Your task to perform on an android device: What's on the menu at Subway? Image 0: 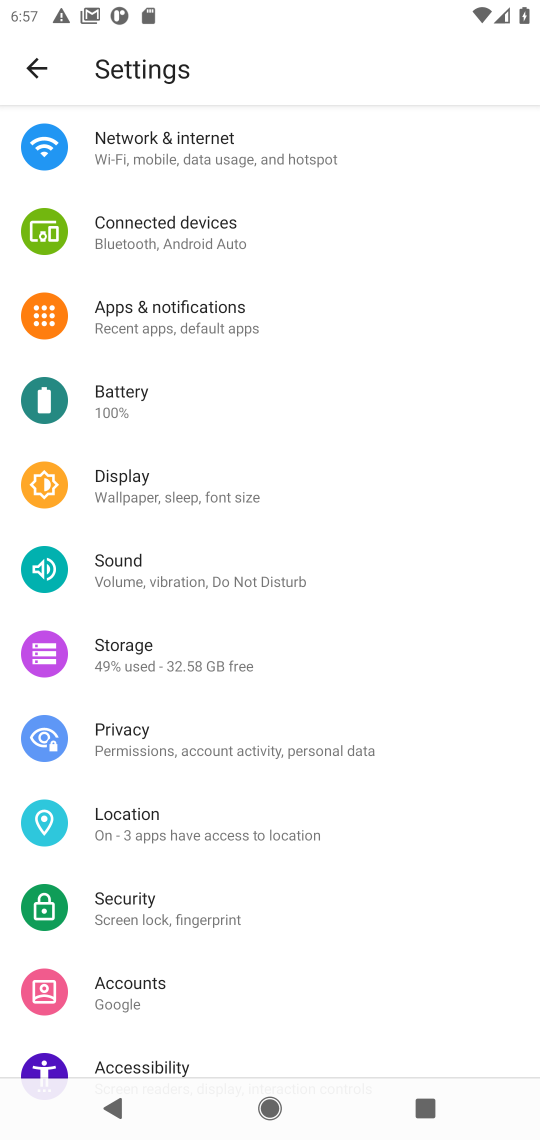
Step 0: press home button
Your task to perform on an android device: What's on the menu at Subway? Image 1: 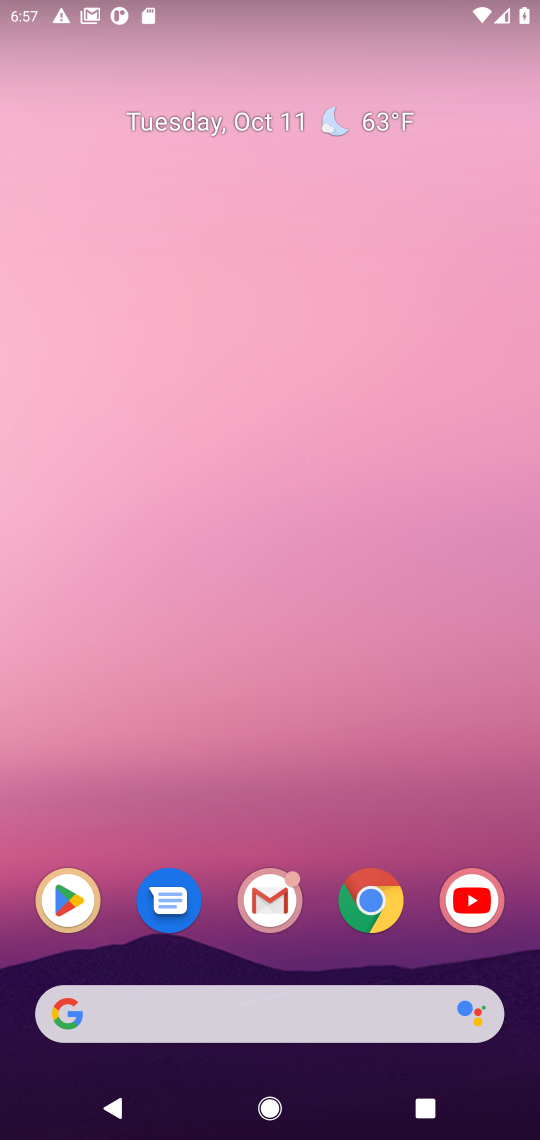
Step 1: click (363, 903)
Your task to perform on an android device: What's on the menu at Subway? Image 2: 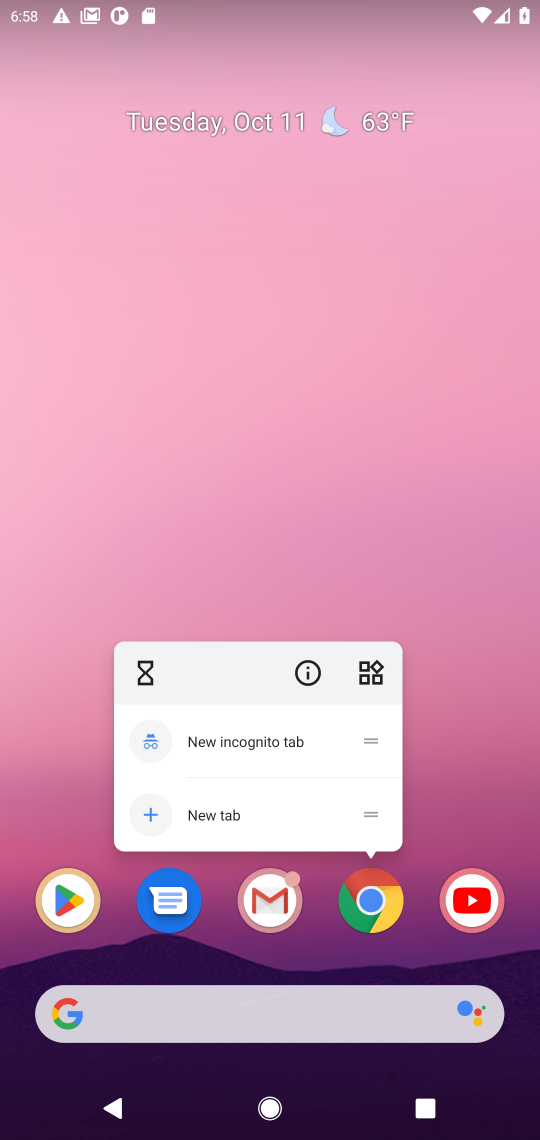
Step 2: click (373, 893)
Your task to perform on an android device: What's on the menu at Subway? Image 3: 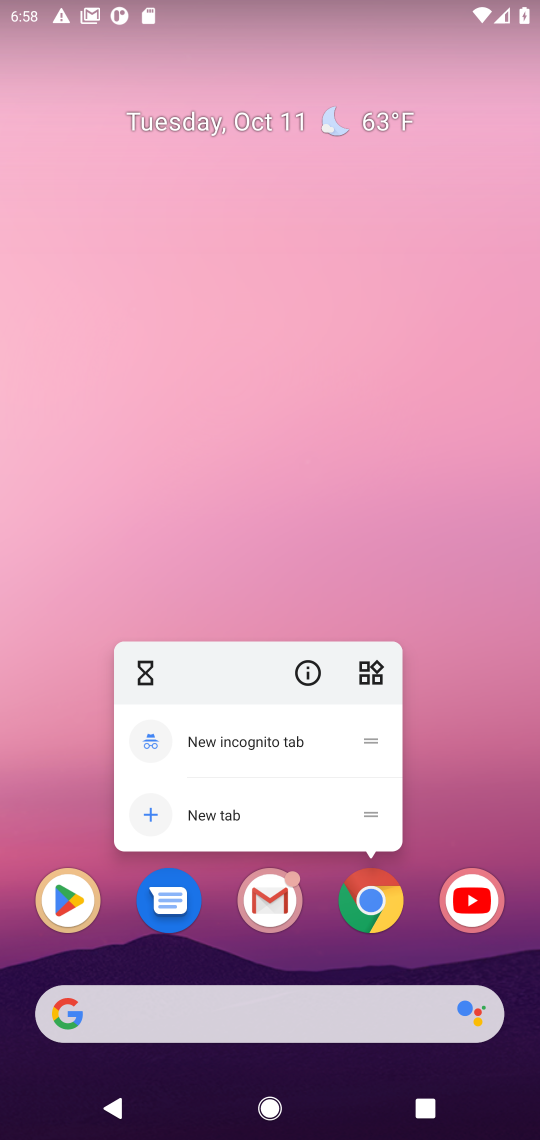
Step 3: click (375, 903)
Your task to perform on an android device: What's on the menu at Subway? Image 4: 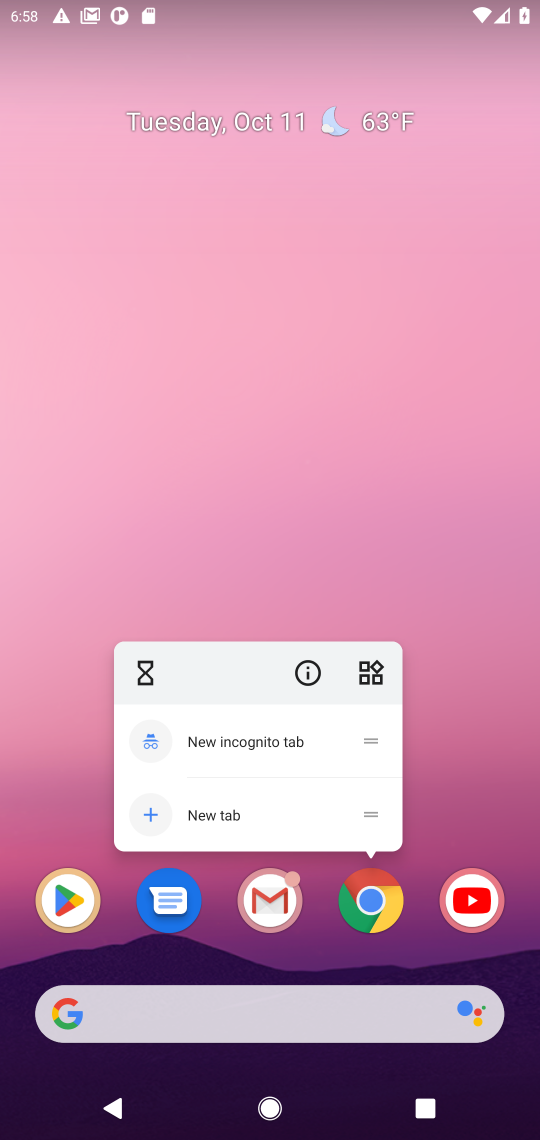
Step 4: click (373, 906)
Your task to perform on an android device: What's on the menu at Subway? Image 5: 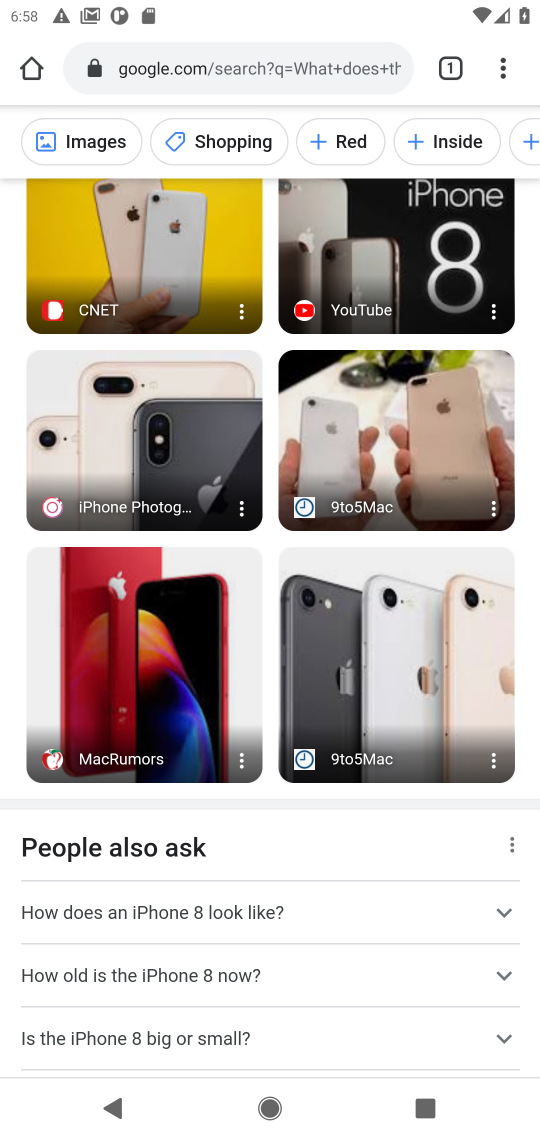
Step 5: click (334, 66)
Your task to perform on an android device: What's on the menu at Subway? Image 6: 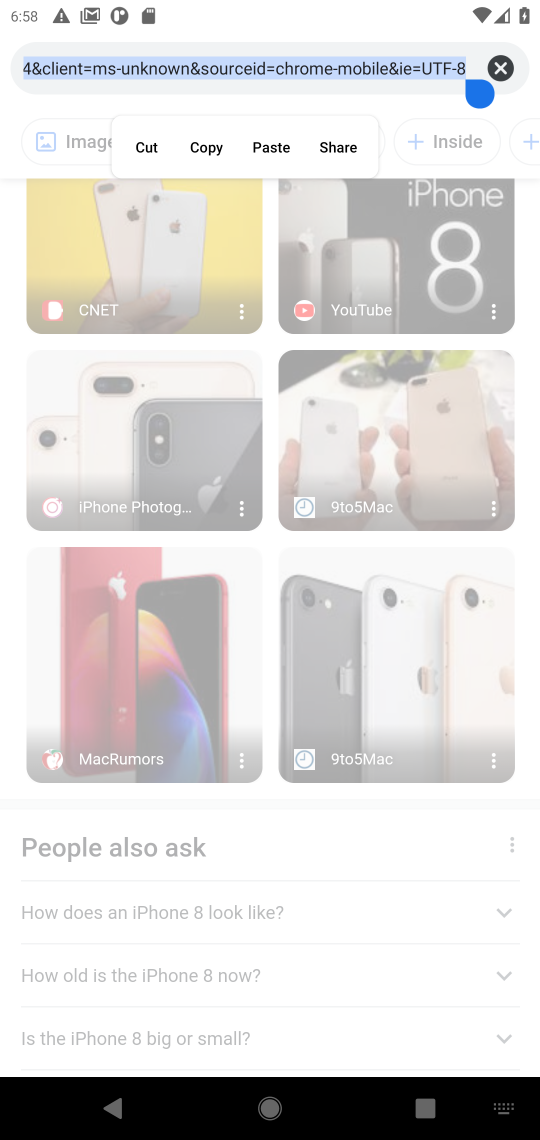
Step 6: click (499, 72)
Your task to perform on an android device: What's on the menu at Subway? Image 7: 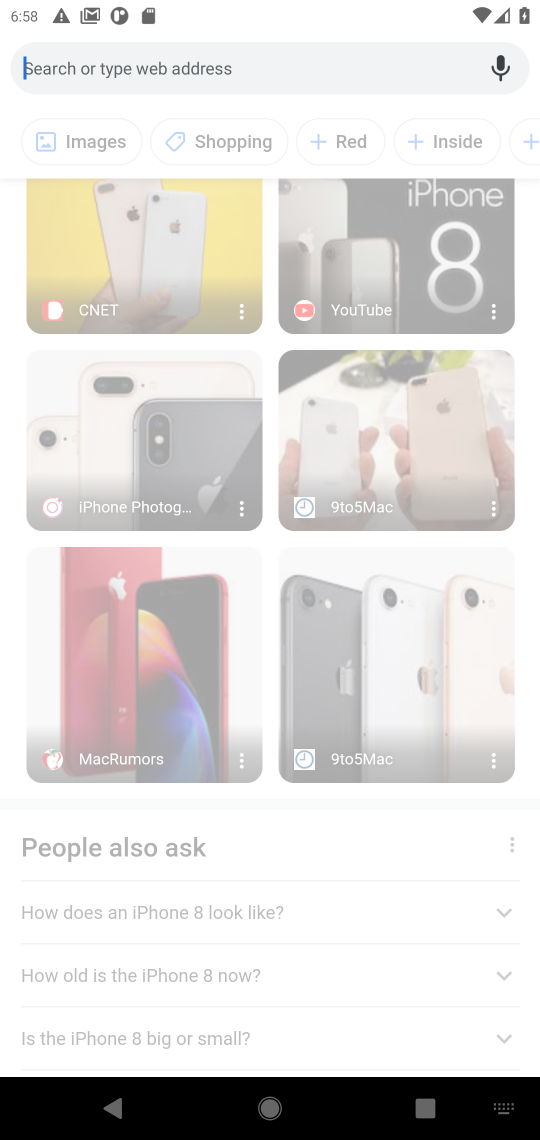
Step 7: type "menu at Subway"
Your task to perform on an android device: What's on the menu at Subway? Image 8: 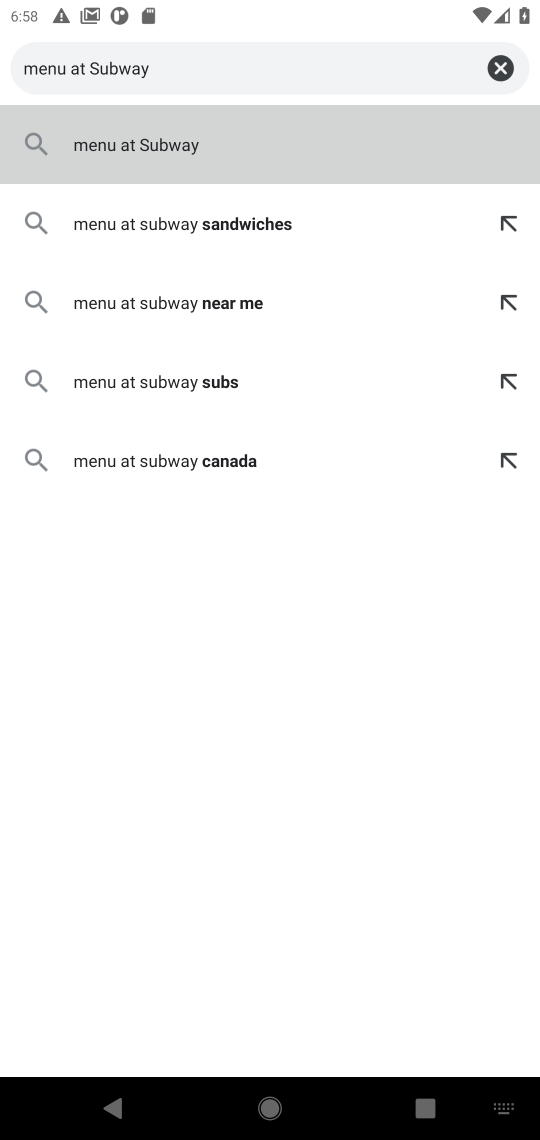
Step 8: press enter
Your task to perform on an android device: What's on the menu at Subway? Image 9: 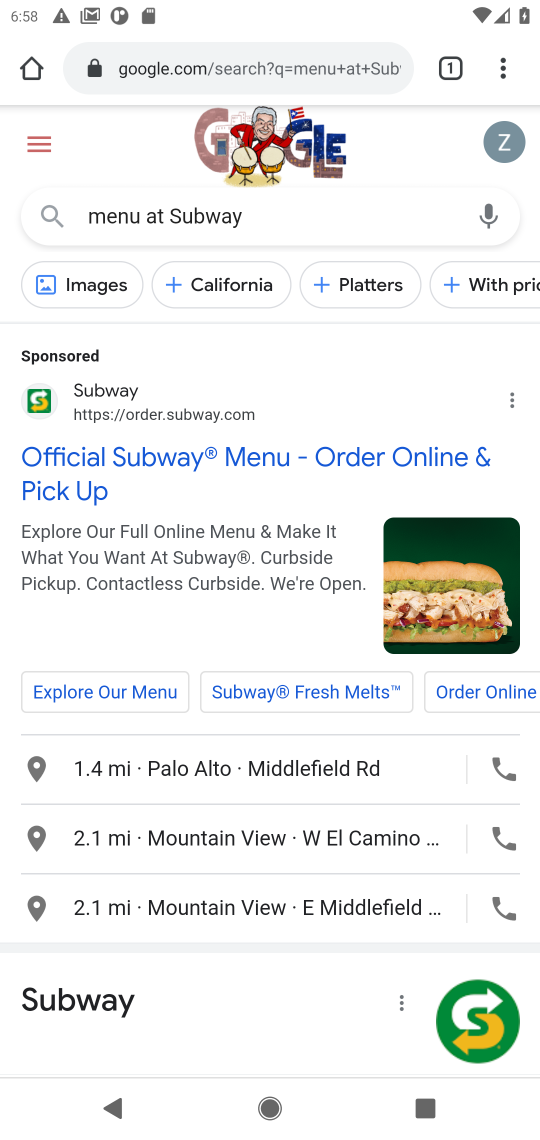
Step 9: drag from (191, 830) to (337, 198)
Your task to perform on an android device: What's on the menu at Subway? Image 10: 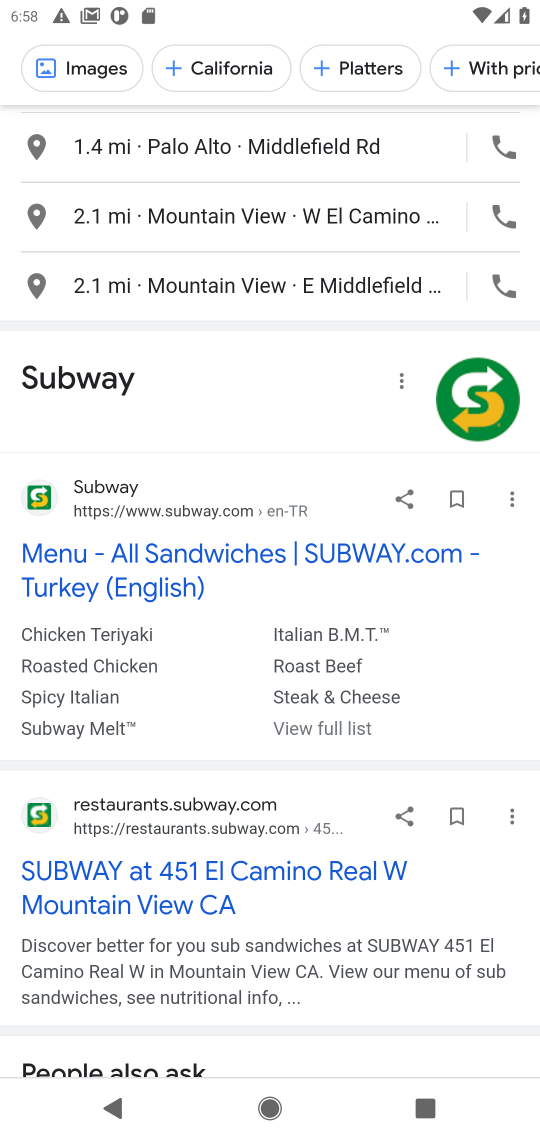
Step 10: click (124, 555)
Your task to perform on an android device: What's on the menu at Subway? Image 11: 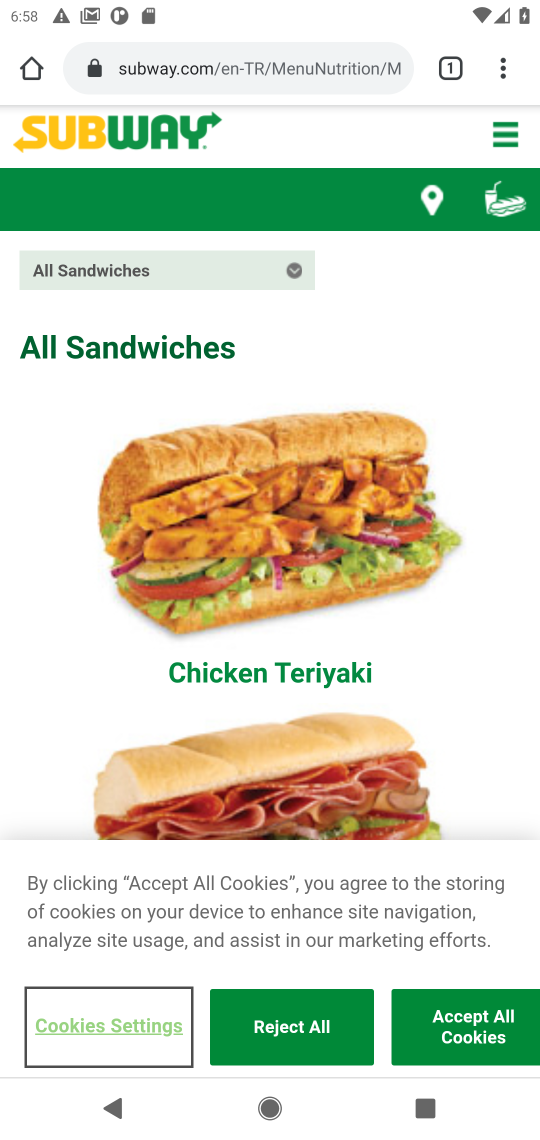
Step 11: click (474, 1039)
Your task to perform on an android device: What's on the menu at Subway? Image 12: 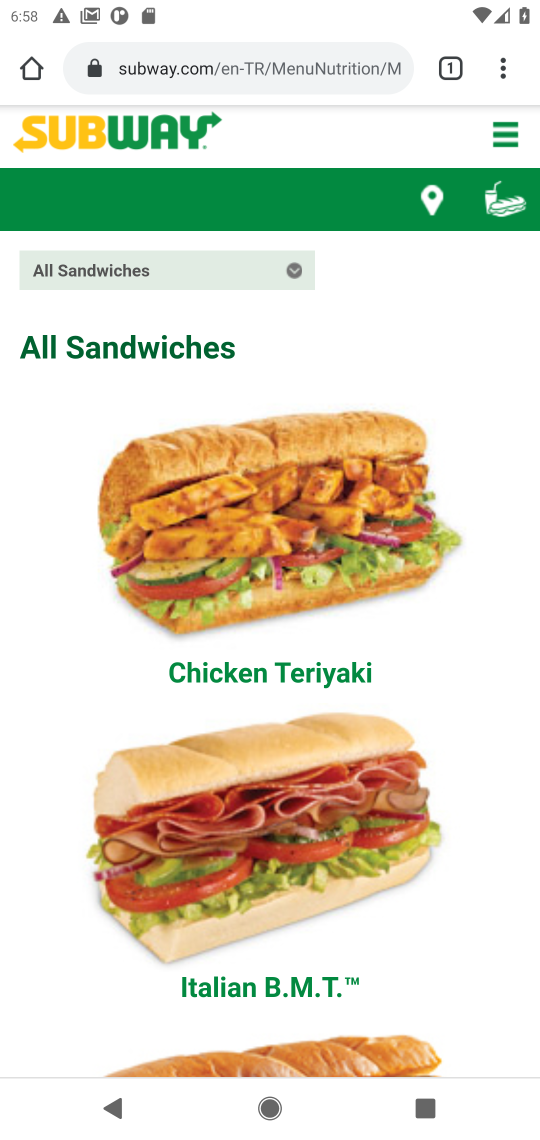
Step 12: task complete